Your task to perform on an android device: Go to Yahoo.com Image 0: 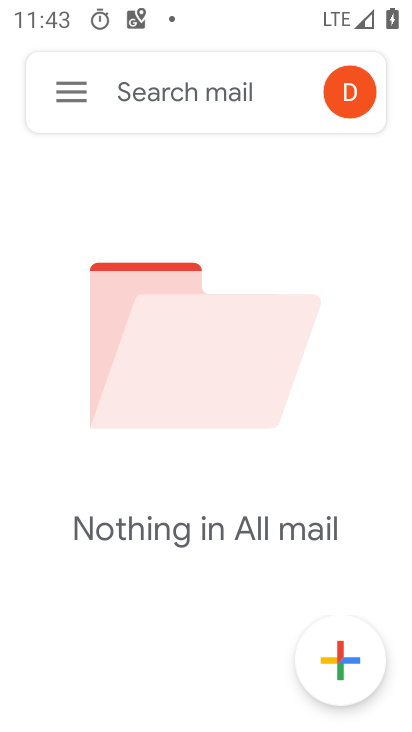
Step 0: press home button
Your task to perform on an android device: Go to Yahoo.com Image 1: 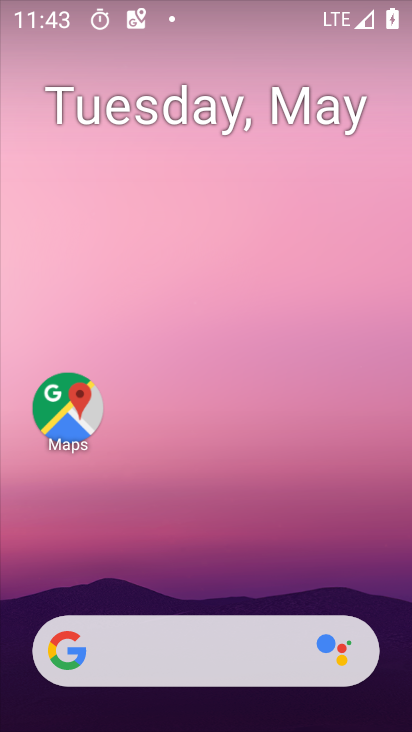
Step 1: drag from (220, 632) to (221, 195)
Your task to perform on an android device: Go to Yahoo.com Image 2: 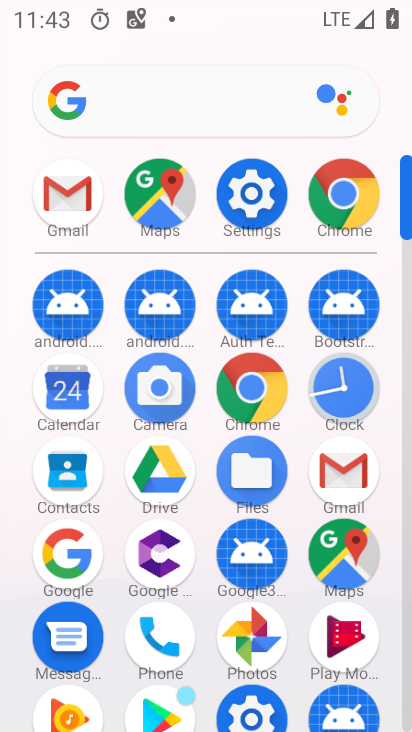
Step 2: click (256, 387)
Your task to perform on an android device: Go to Yahoo.com Image 3: 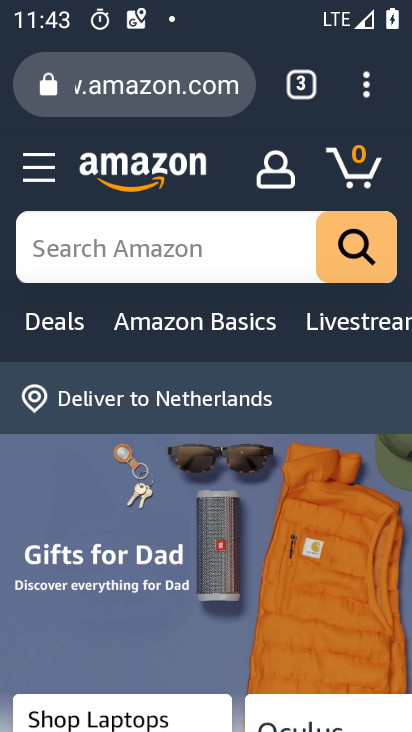
Step 3: click (164, 88)
Your task to perform on an android device: Go to Yahoo.com Image 4: 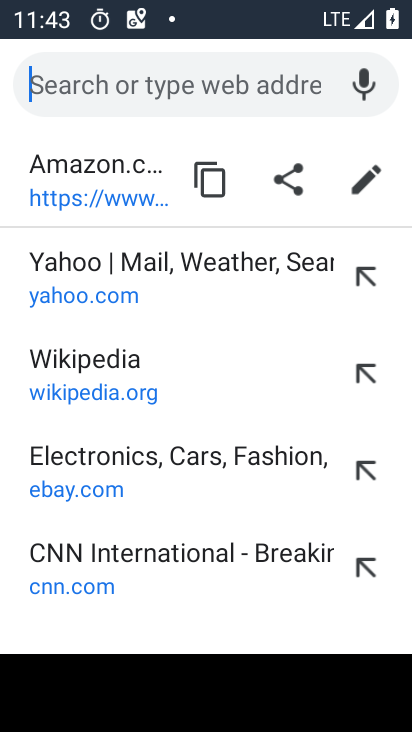
Step 4: click (140, 274)
Your task to perform on an android device: Go to Yahoo.com Image 5: 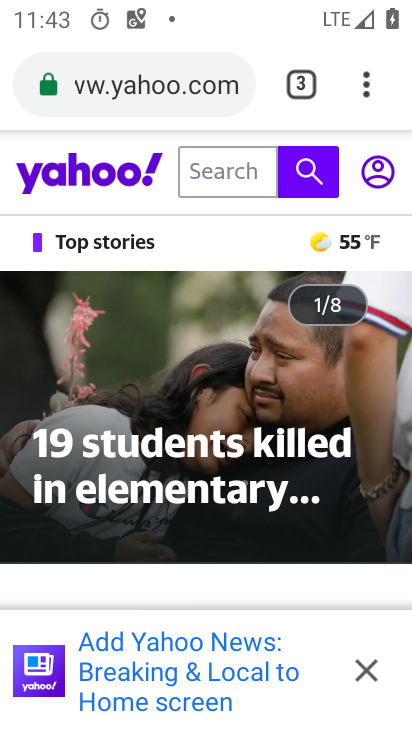
Step 5: task complete